Your task to perform on an android device: See recent photos Image 0: 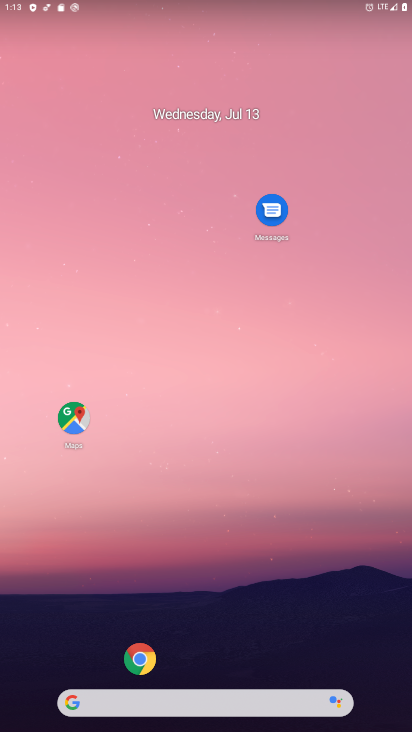
Step 0: drag from (30, 675) to (248, 38)
Your task to perform on an android device: See recent photos Image 1: 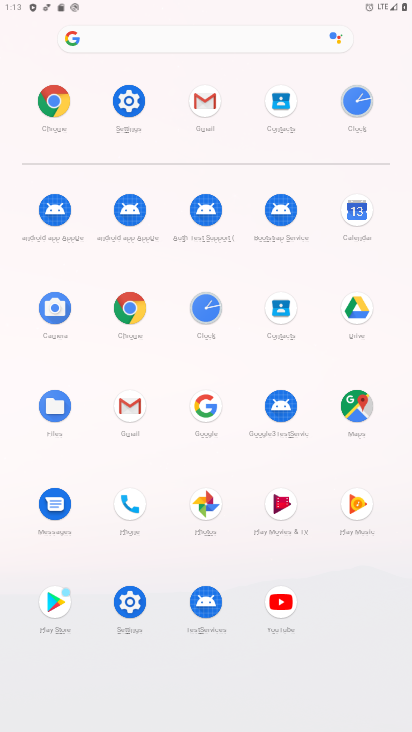
Step 1: click (216, 507)
Your task to perform on an android device: See recent photos Image 2: 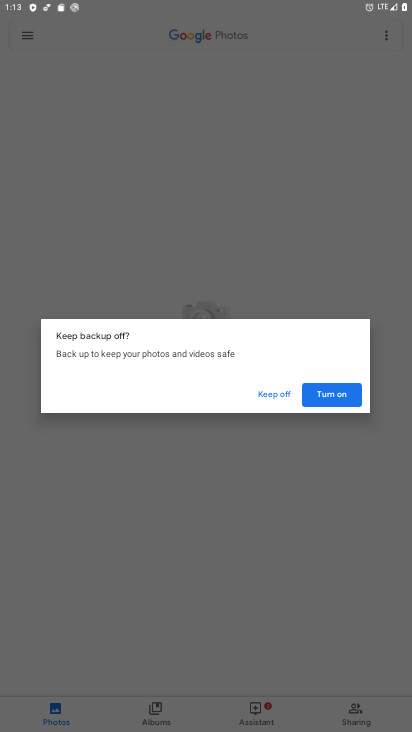
Step 2: click (331, 386)
Your task to perform on an android device: See recent photos Image 3: 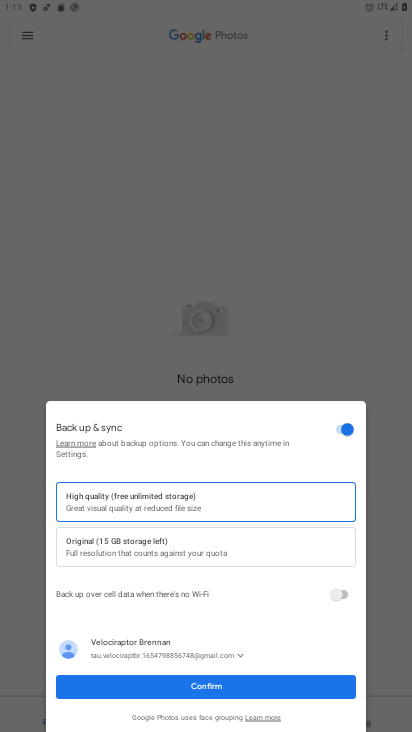
Step 3: click (201, 677)
Your task to perform on an android device: See recent photos Image 4: 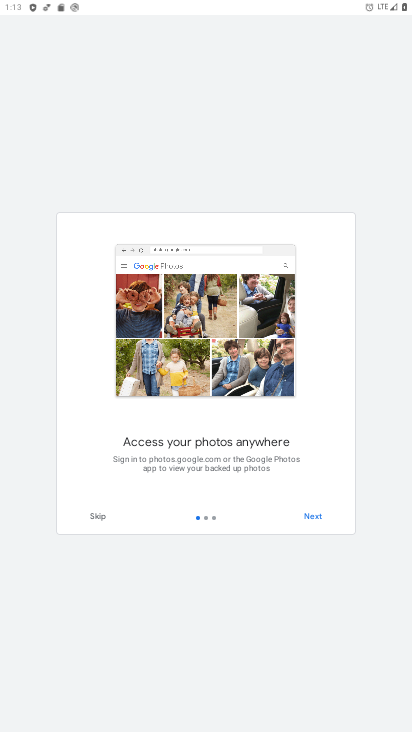
Step 4: click (321, 506)
Your task to perform on an android device: See recent photos Image 5: 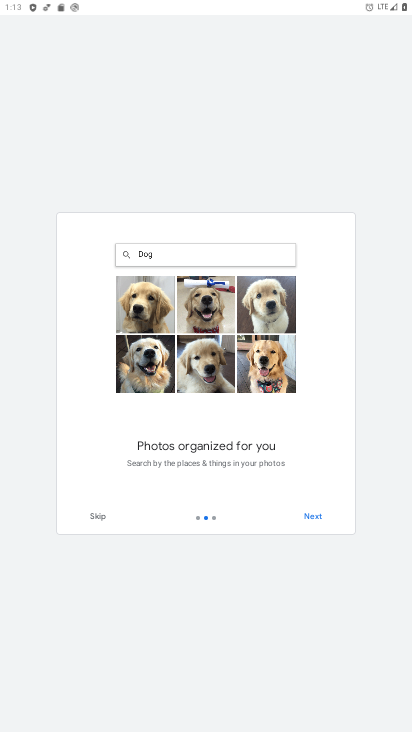
Step 5: click (307, 512)
Your task to perform on an android device: See recent photos Image 6: 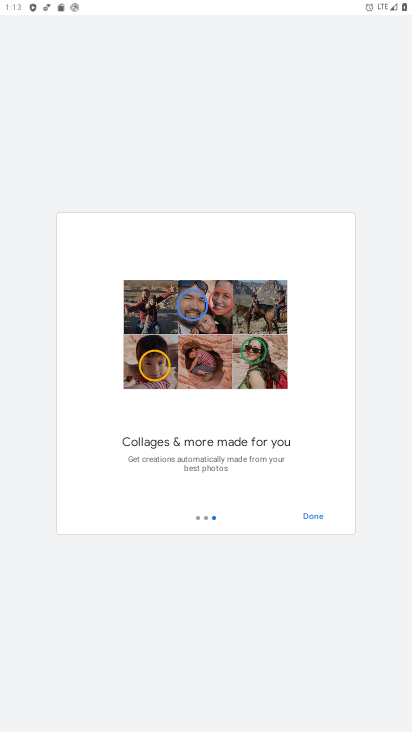
Step 6: click (310, 520)
Your task to perform on an android device: See recent photos Image 7: 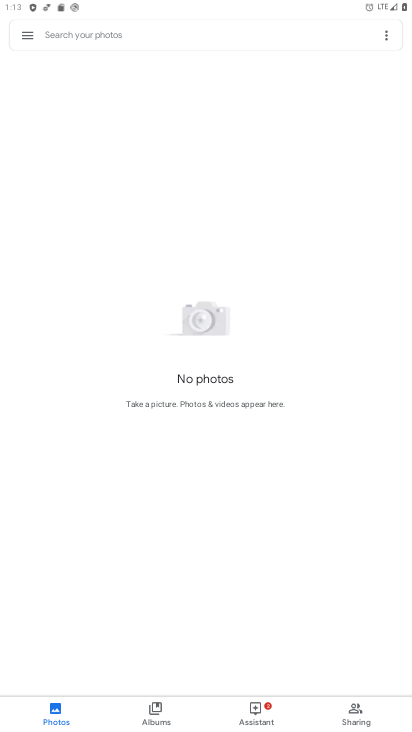
Step 7: task complete